Your task to perform on an android device: turn off notifications settings in the gmail app Image 0: 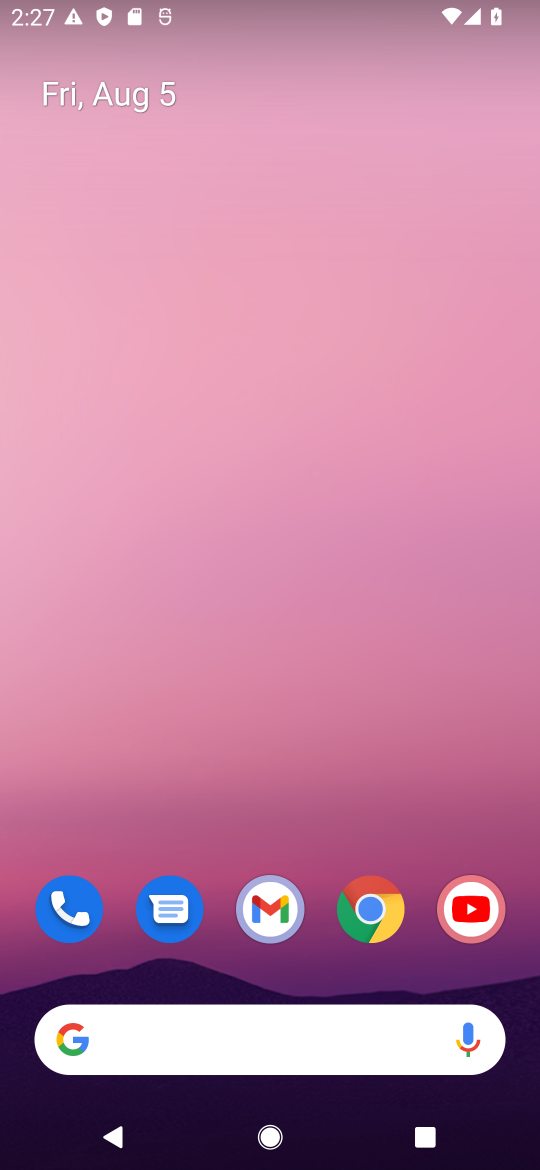
Step 0: press home button
Your task to perform on an android device: turn off notifications settings in the gmail app Image 1: 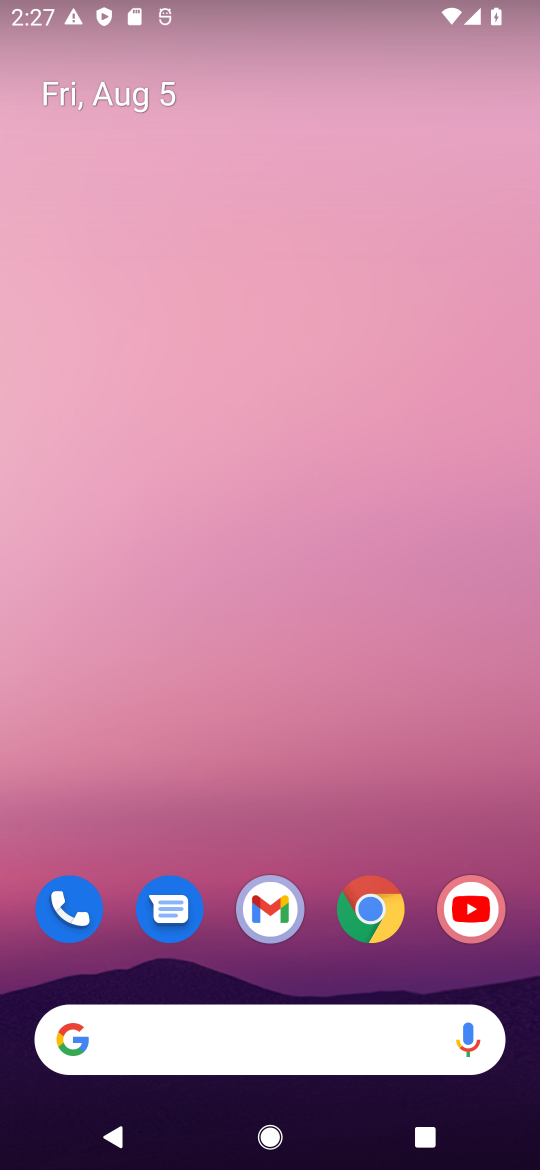
Step 1: drag from (320, 837) to (308, 376)
Your task to perform on an android device: turn off notifications settings in the gmail app Image 2: 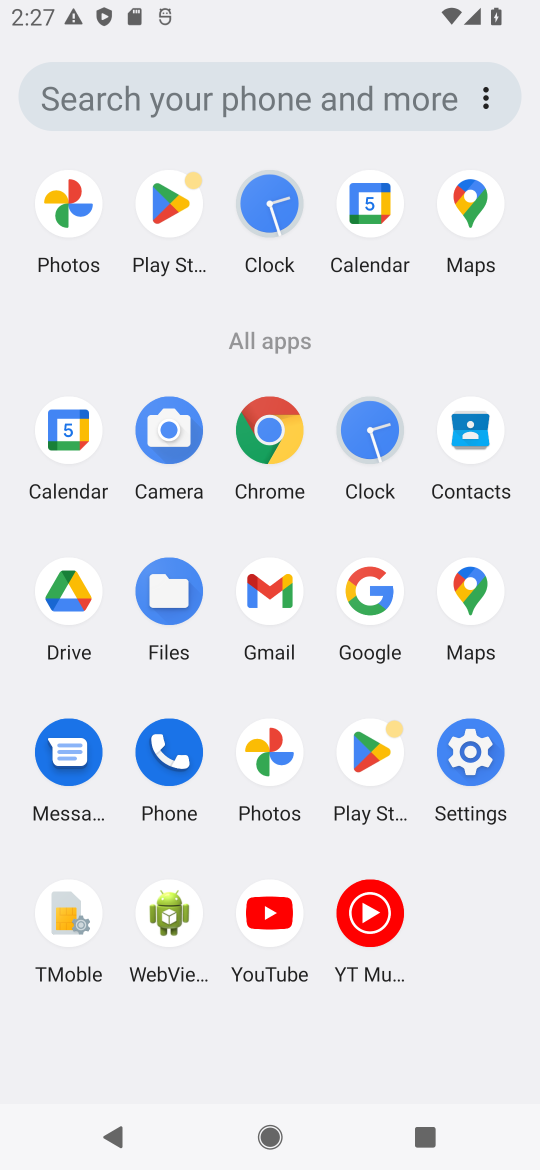
Step 2: click (252, 590)
Your task to perform on an android device: turn off notifications settings in the gmail app Image 3: 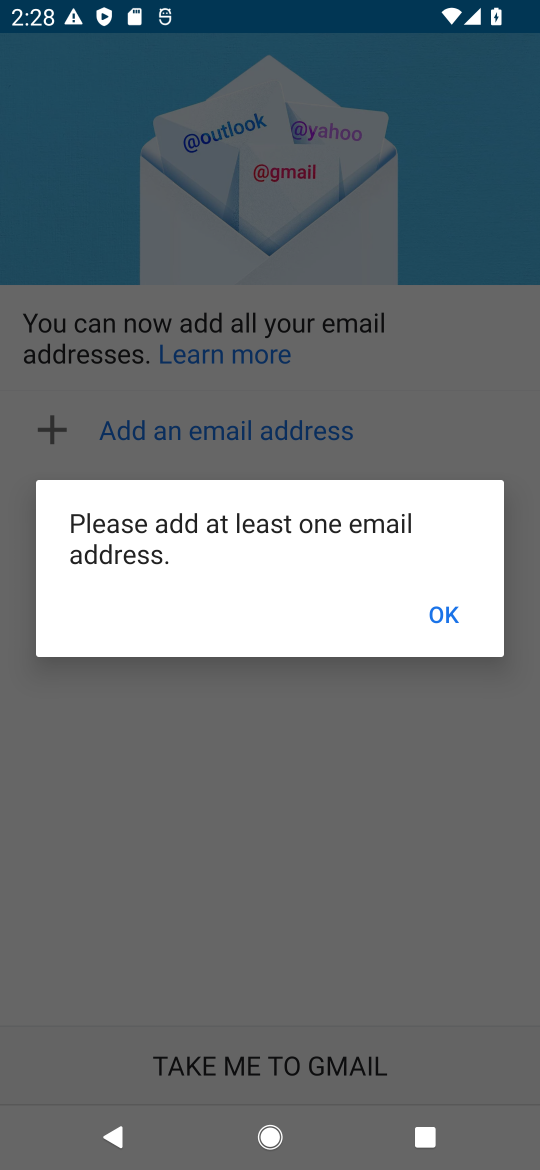
Step 3: task complete